Your task to perform on an android device: Go to location settings Image 0: 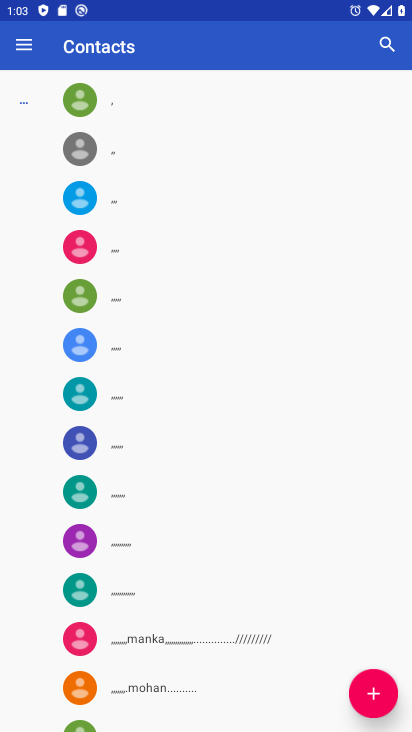
Step 0: press home button
Your task to perform on an android device: Go to location settings Image 1: 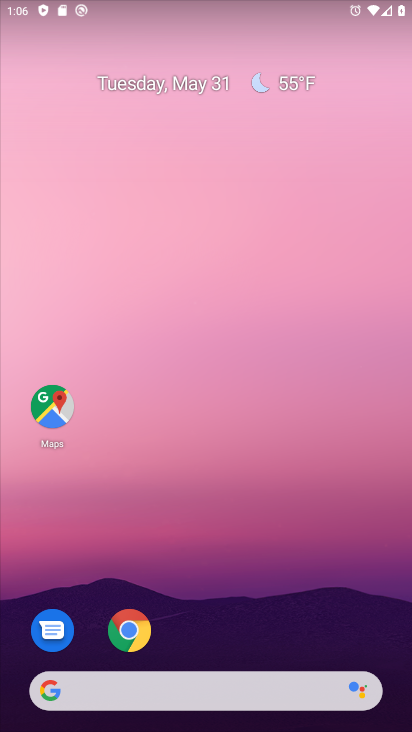
Step 1: drag from (227, 472) to (238, 292)
Your task to perform on an android device: Go to location settings Image 2: 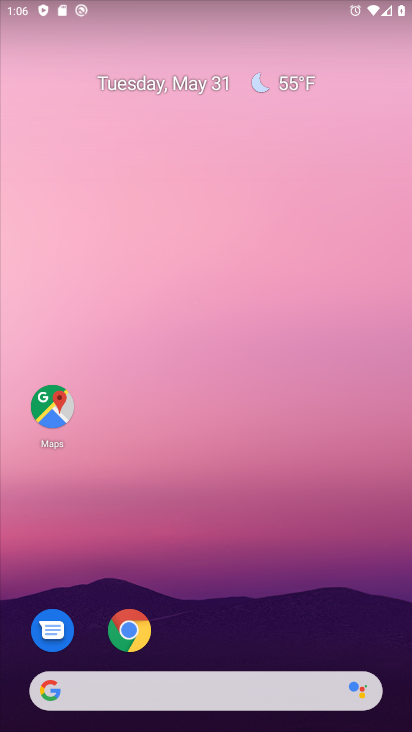
Step 2: drag from (225, 601) to (190, 167)
Your task to perform on an android device: Go to location settings Image 3: 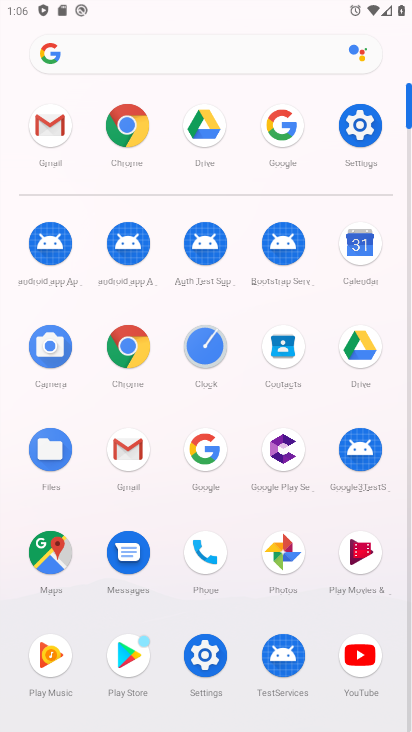
Step 3: click (364, 114)
Your task to perform on an android device: Go to location settings Image 4: 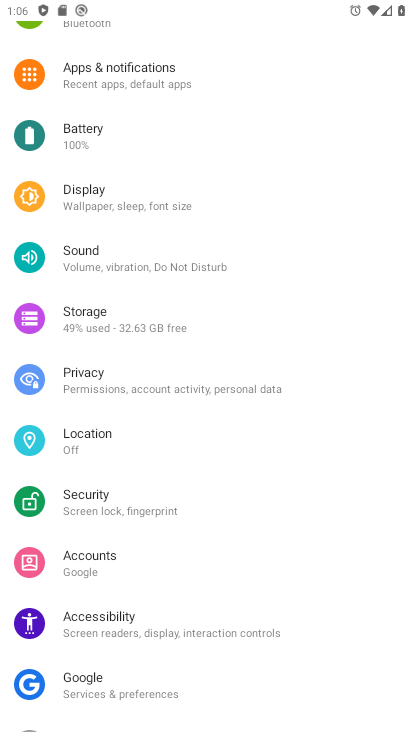
Step 4: click (104, 430)
Your task to perform on an android device: Go to location settings Image 5: 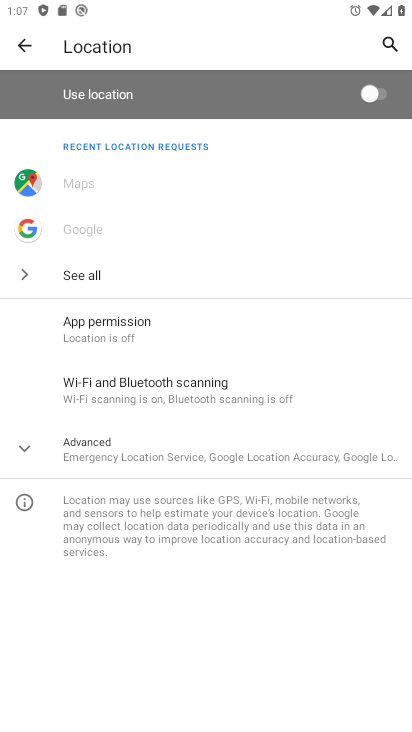
Step 5: click (106, 449)
Your task to perform on an android device: Go to location settings Image 6: 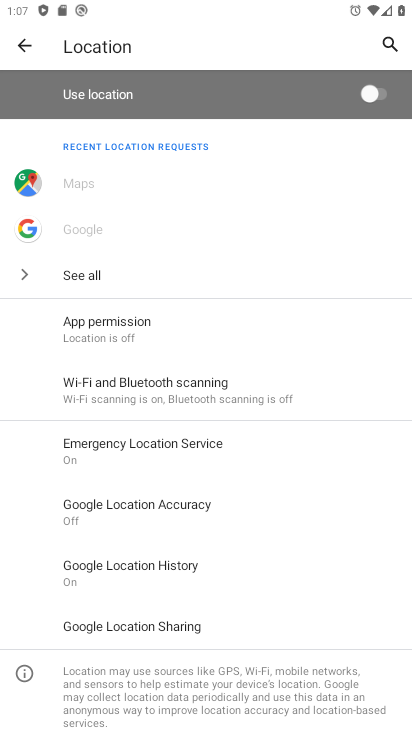
Step 6: task complete